Your task to perform on an android device: open app "Spotify" (install if not already installed) and go to login screen Image 0: 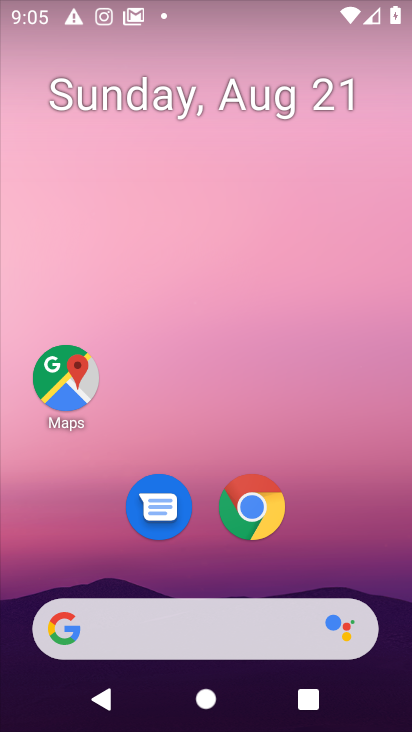
Step 0: drag from (202, 390) to (202, 0)
Your task to perform on an android device: open app "Spotify" (install if not already installed) and go to login screen Image 1: 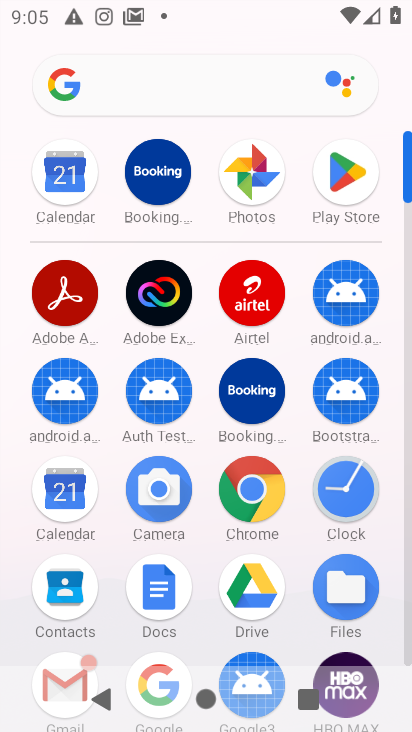
Step 1: click (345, 181)
Your task to perform on an android device: open app "Spotify" (install if not already installed) and go to login screen Image 2: 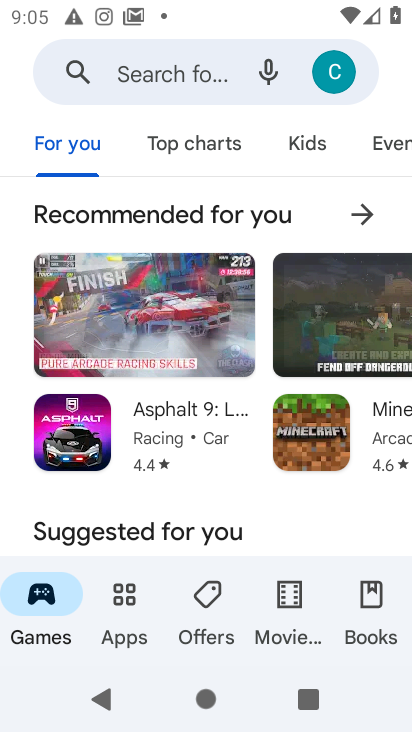
Step 2: click (151, 58)
Your task to perform on an android device: open app "Spotify" (install if not already installed) and go to login screen Image 3: 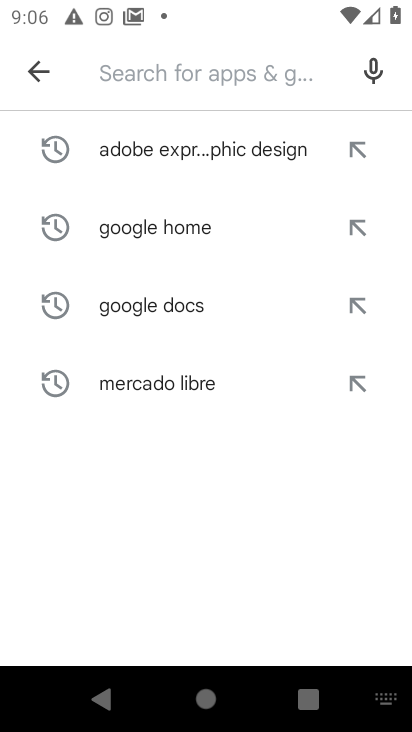
Step 3: type "Spotify"
Your task to perform on an android device: open app "Spotify" (install if not already installed) and go to login screen Image 4: 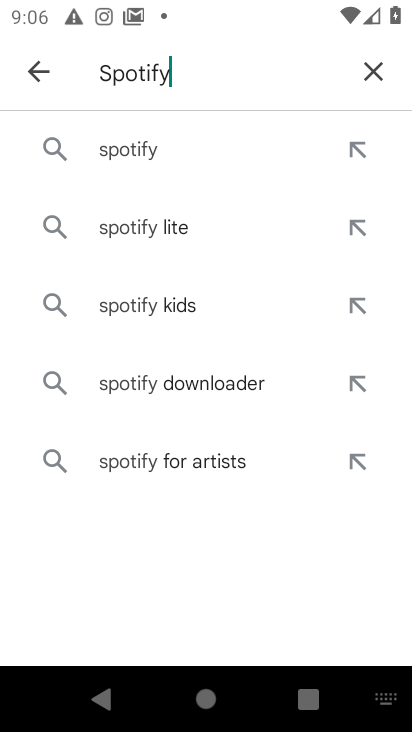
Step 4: type "Spotify"
Your task to perform on an android device: open app "Spotify" (install if not already installed) and go to login screen Image 5: 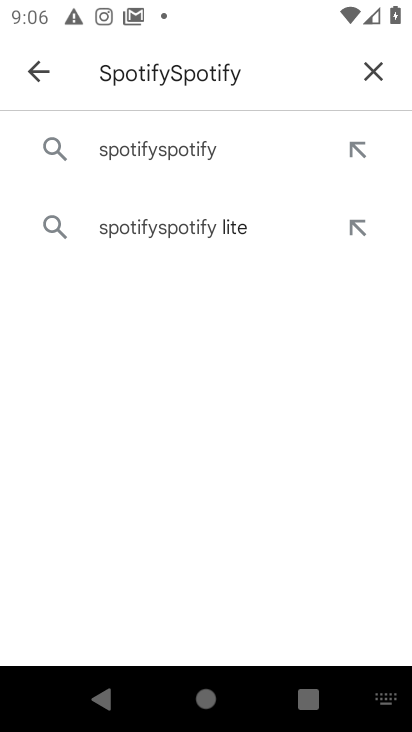
Step 5: click (169, 149)
Your task to perform on an android device: open app "Spotify" (install if not already installed) and go to login screen Image 6: 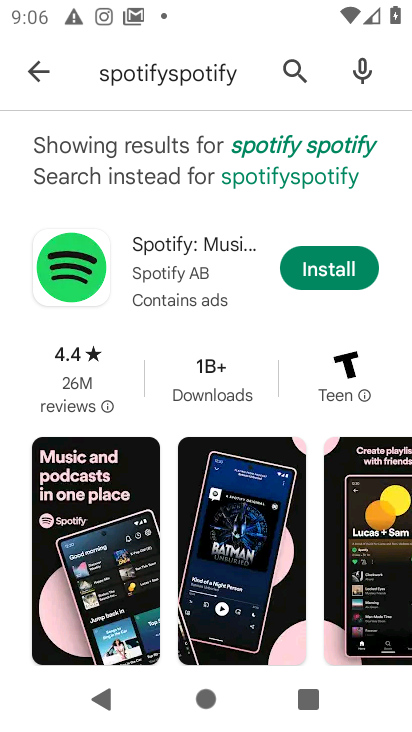
Step 6: click (337, 279)
Your task to perform on an android device: open app "Spotify" (install if not already installed) and go to login screen Image 7: 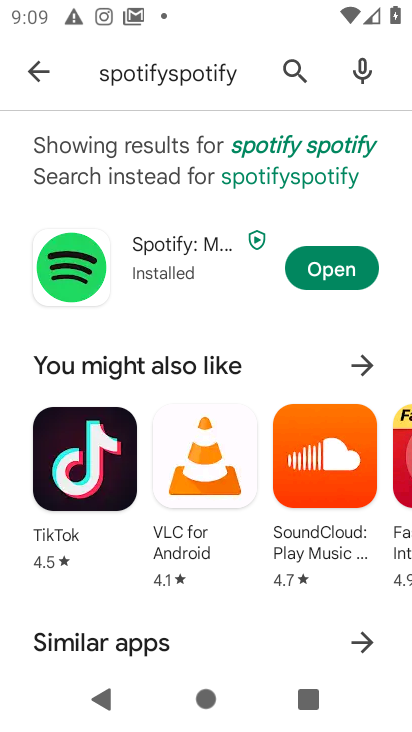
Step 7: click (339, 265)
Your task to perform on an android device: open app "Spotify" (install if not already installed) and go to login screen Image 8: 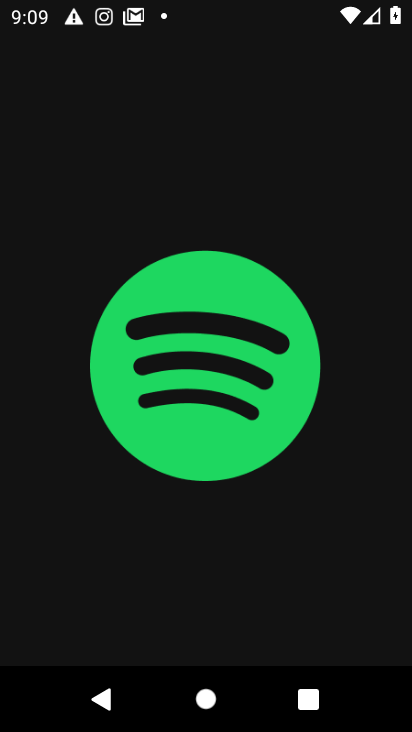
Step 8: task complete